Your task to perform on an android device: open chrome and create a bookmark for the current page Image 0: 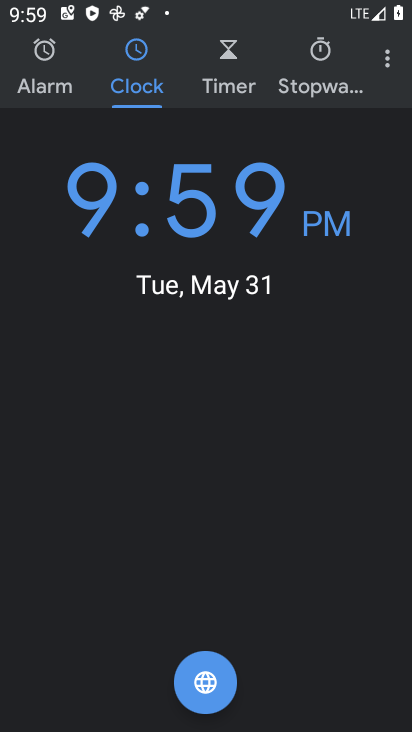
Step 0: press home button
Your task to perform on an android device: open chrome and create a bookmark for the current page Image 1: 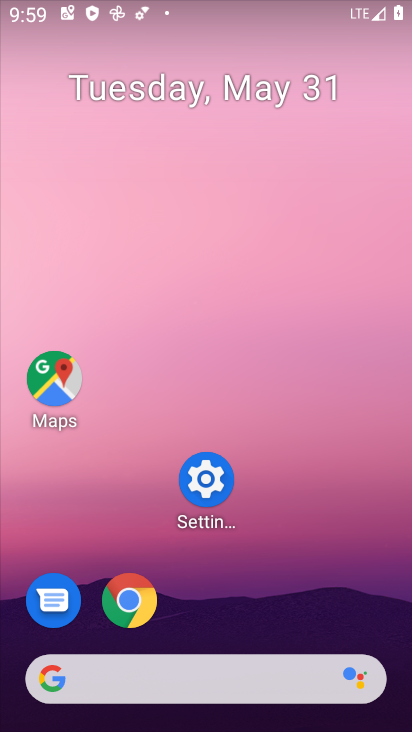
Step 1: click (144, 586)
Your task to perform on an android device: open chrome and create a bookmark for the current page Image 2: 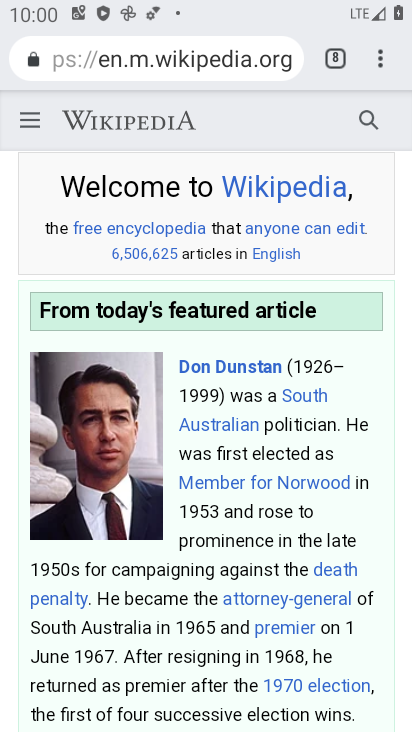
Step 2: click (377, 58)
Your task to perform on an android device: open chrome and create a bookmark for the current page Image 3: 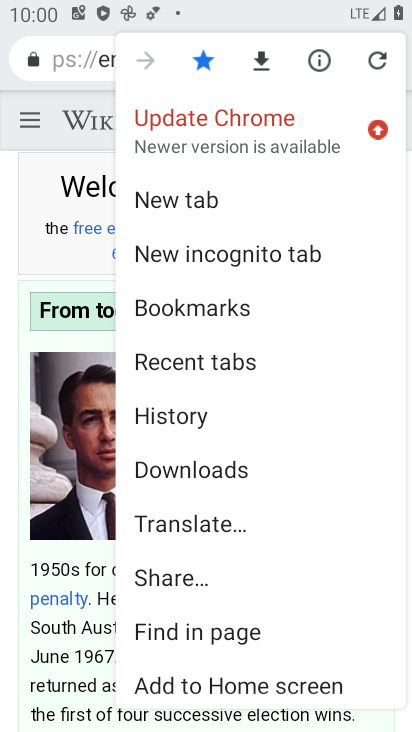
Step 3: click (193, 305)
Your task to perform on an android device: open chrome and create a bookmark for the current page Image 4: 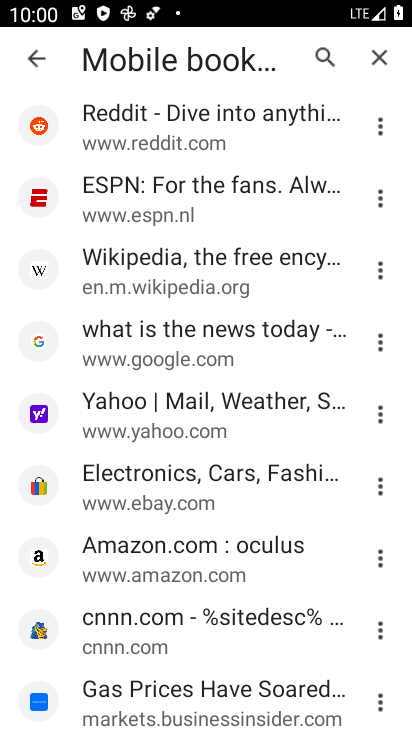
Step 4: task complete